Your task to perform on an android device: Turn off the flashlight Image 0: 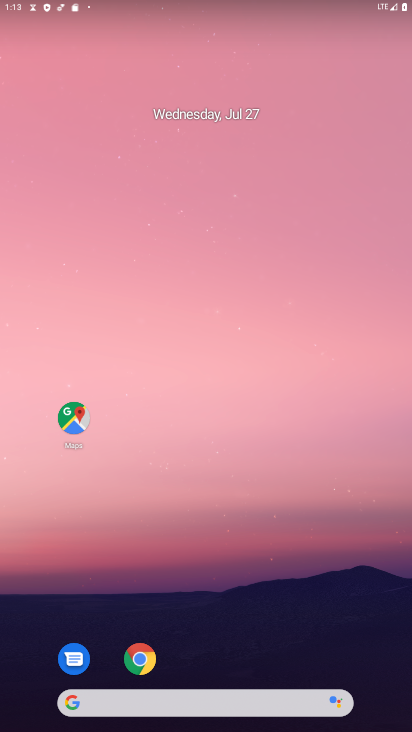
Step 0: drag from (194, 729) to (162, 23)
Your task to perform on an android device: Turn off the flashlight Image 1: 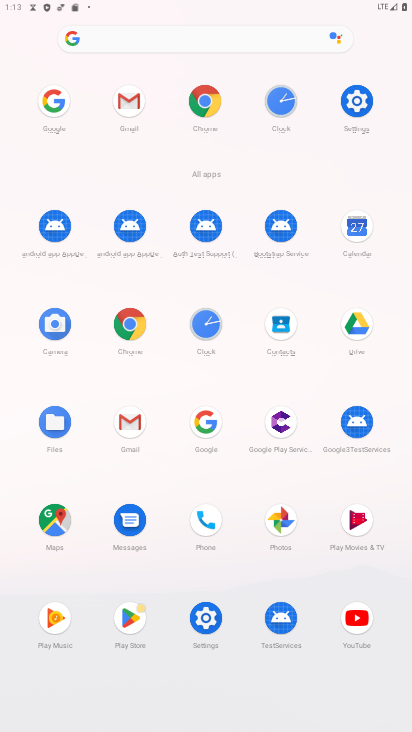
Step 1: click (353, 106)
Your task to perform on an android device: Turn off the flashlight Image 2: 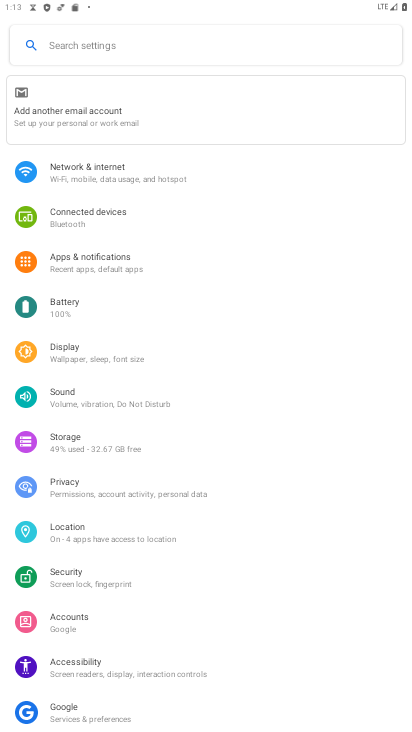
Step 2: task complete